Your task to perform on an android device: open wifi settings Image 0: 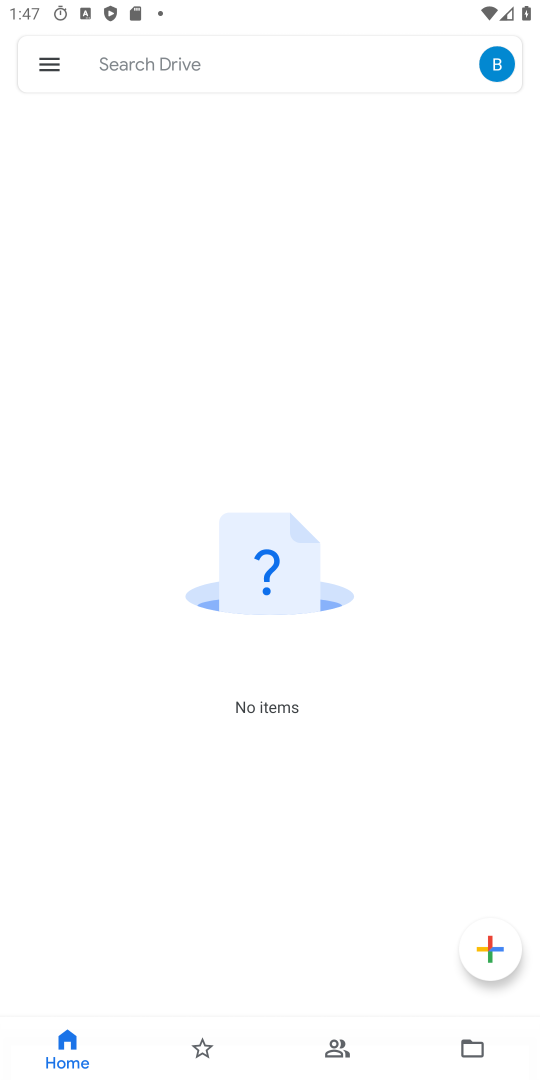
Step 0: press home button
Your task to perform on an android device: open wifi settings Image 1: 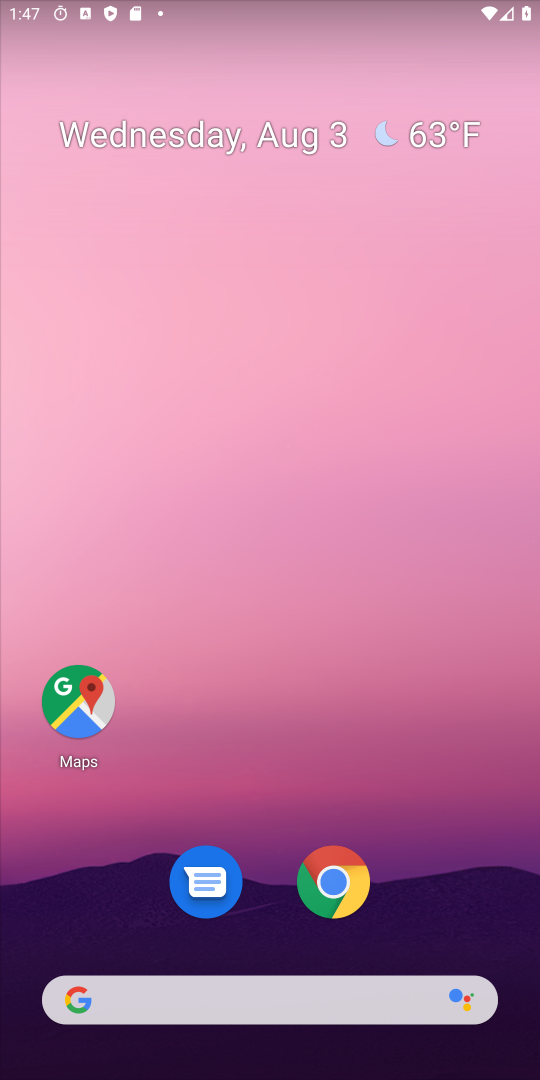
Step 1: drag from (287, 613) to (283, 4)
Your task to perform on an android device: open wifi settings Image 2: 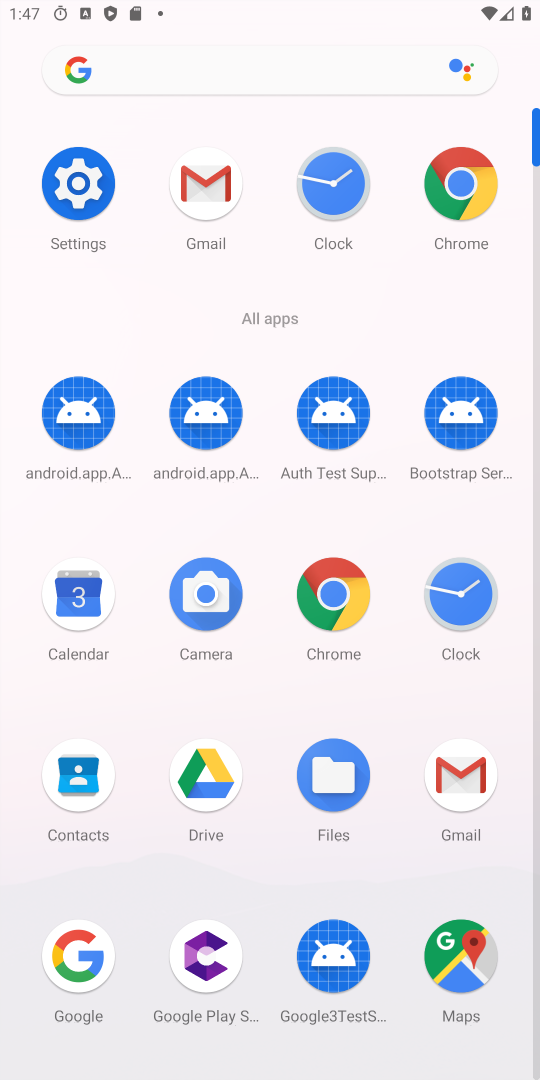
Step 2: click (97, 200)
Your task to perform on an android device: open wifi settings Image 3: 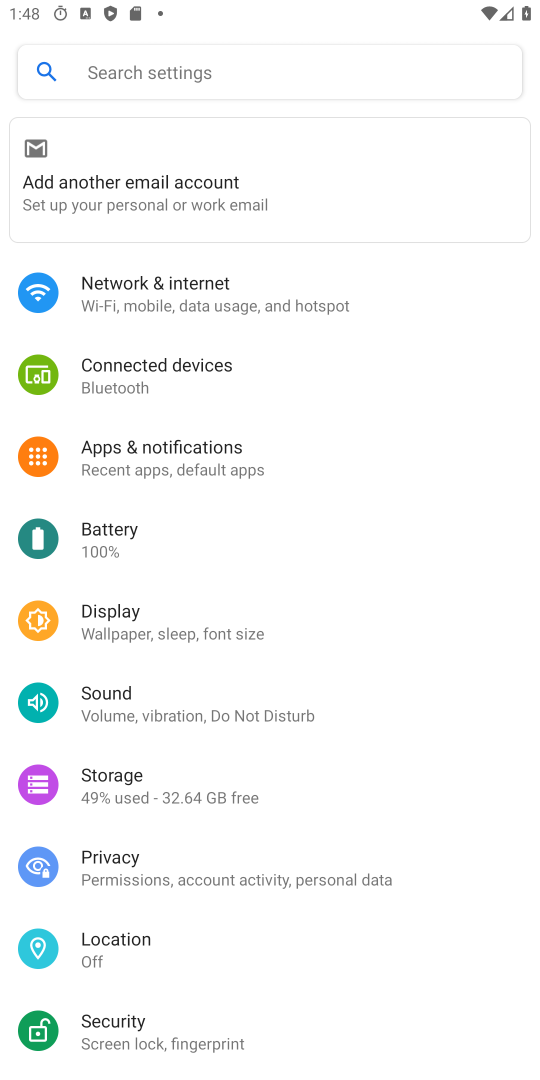
Step 3: click (156, 267)
Your task to perform on an android device: open wifi settings Image 4: 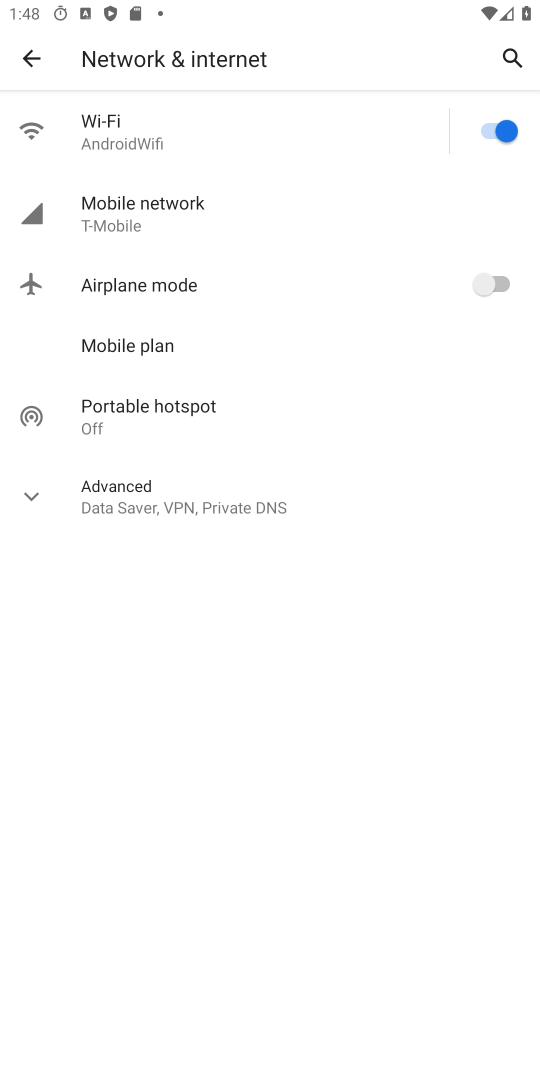
Step 4: click (304, 141)
Your task to perform on an android device: open wifi settings Image 5: 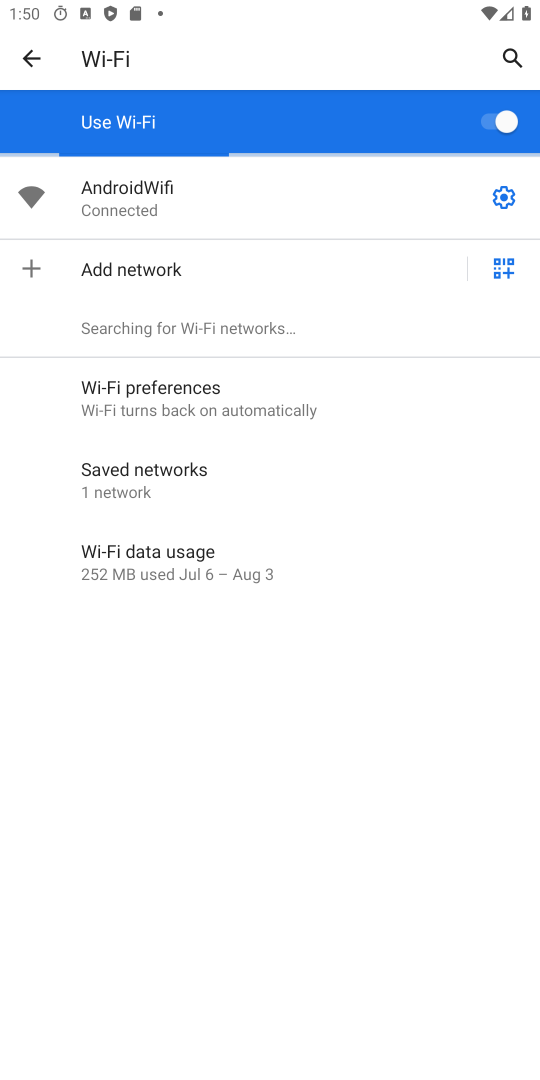
Step 5: task complete